Your task to perform on an android device: turn on the 12-hour format for clock Image 0: 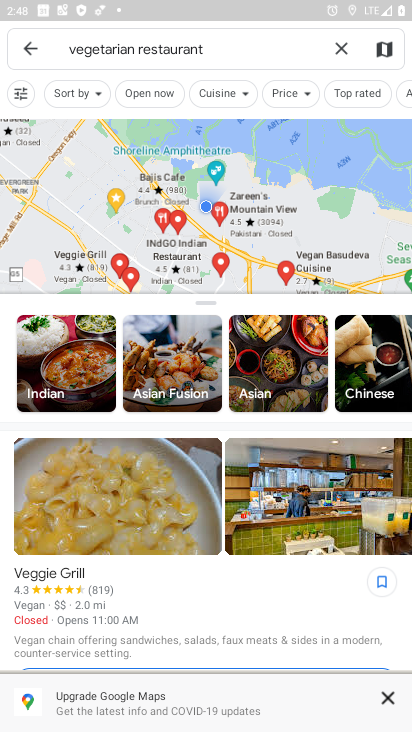
Step 0: press home button
Your task to perform on an android device: turn on the 12-hour format for clock Image 1: 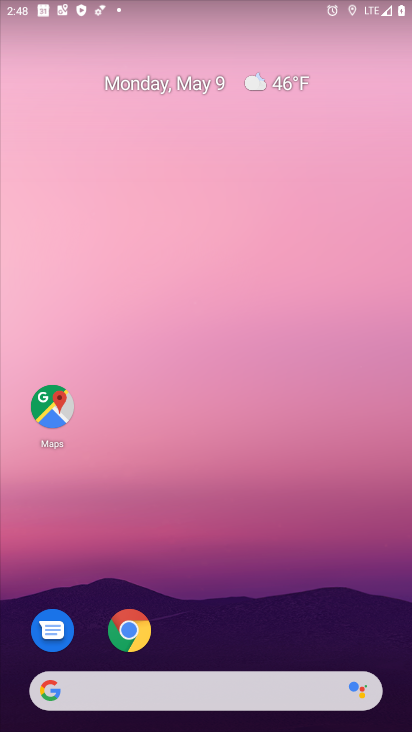
Step 1: drag from (233, 627) to (311, 35)
Your task to perform on an android device: turn on the 12-hour format for clock Image 2: 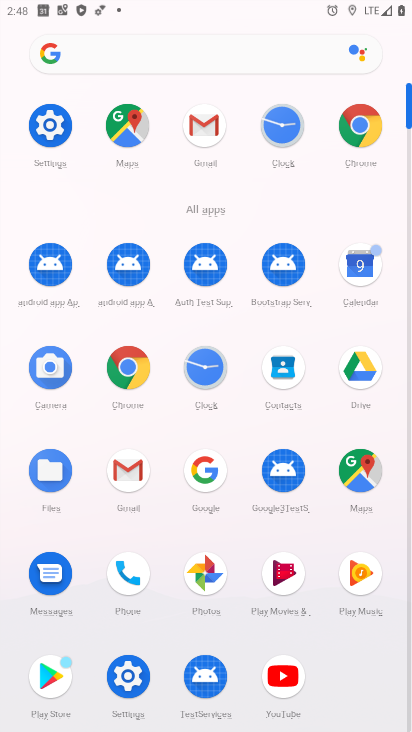
Step 2: click (292, 132)
Your task to perform on an android device: turn on the 12-hour format for clock Image 3: 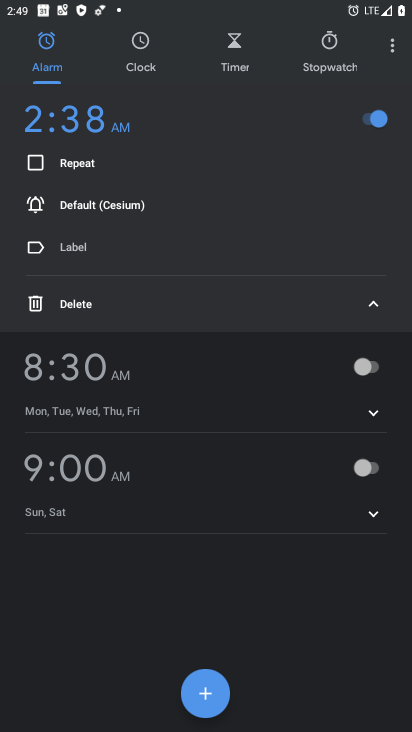
Step 3: click (387, 46)
Your task to perform on an android device: turn on the 12-hour format for clock Image 4: 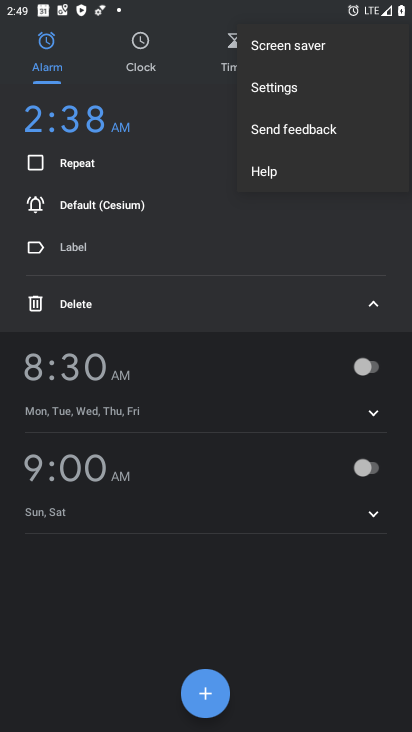
Step 4: click (332, 94)
Your task to perform on an android device: turn on the 12-hour format for clock Image 5: 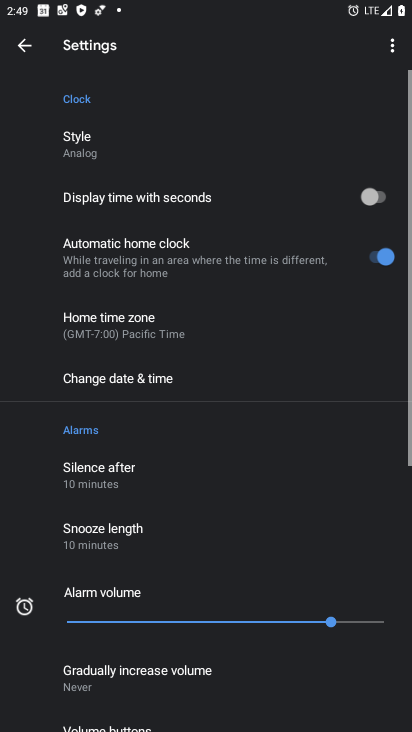
Step 5: click (173, 381)
Your task to perform on an android device: turn on the 12-hour format for clock Image 6: 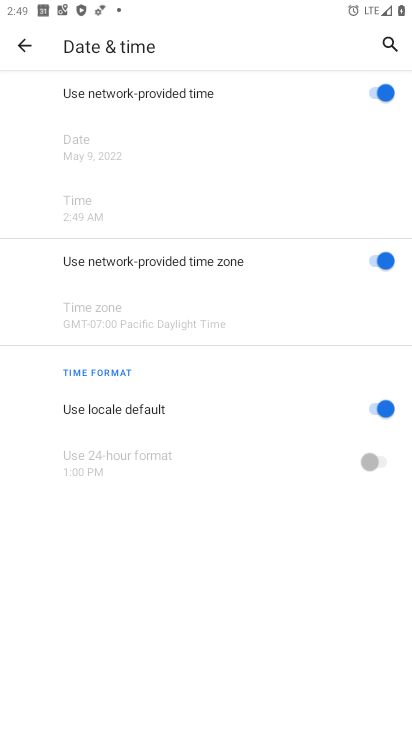
Step 6: click (348, 405)
Your task to perform on an android device: turn on the 12-hour format for clock Image 7: 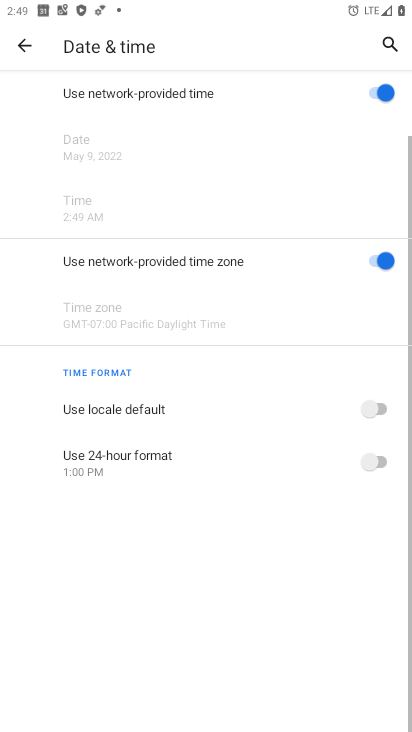
Step 7: click (380, 460)
Your task to perform on an android device: turn on the 12-hour format for clock Image 8: 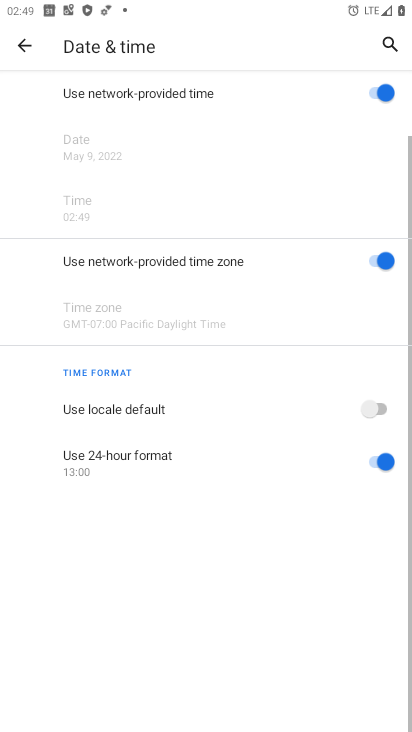
Step 8: task complete